Your task to perform on an android device: turn vacation reply on in the gmail app Image 0: 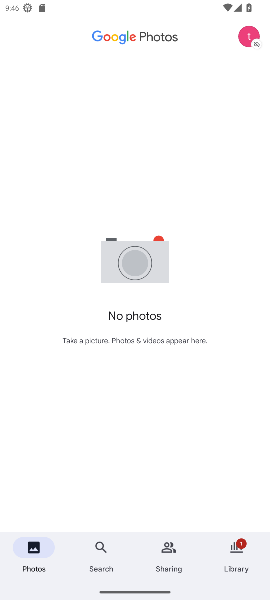
Step 0: press home button
Your task to perform on an android device: turn vacation reply on in the gmail app Image 1: 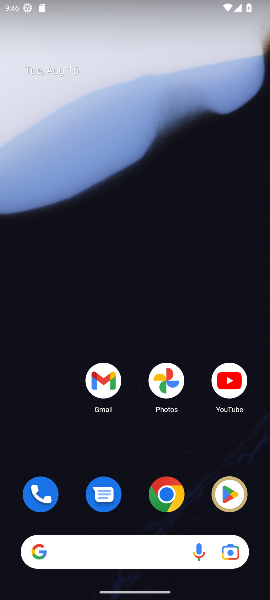
Step 1: drag from (164, 338) to (115, 3)
Your task to perform on an android device: turn vacation reply on in the gmail app Image 2: 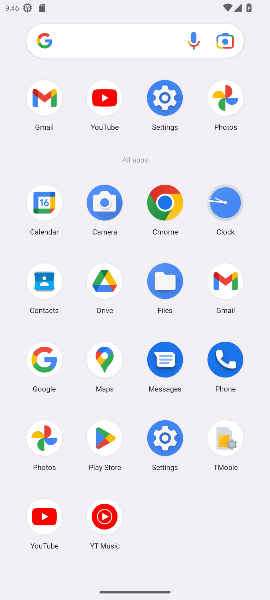
Step 2: click (221, 271)
Your task to perform on an android device: turn vacation reply on in the gmail app Image 3: 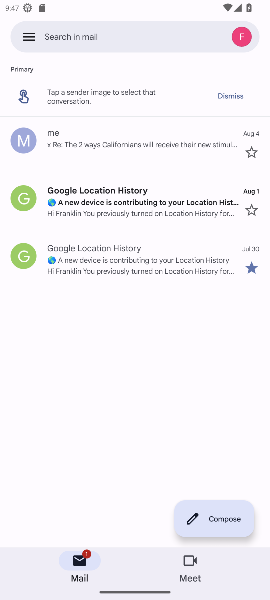
Step 3: click (29, 29)
Your task to perform on an android device: turn vacation reply on in the gmail app Image 4: 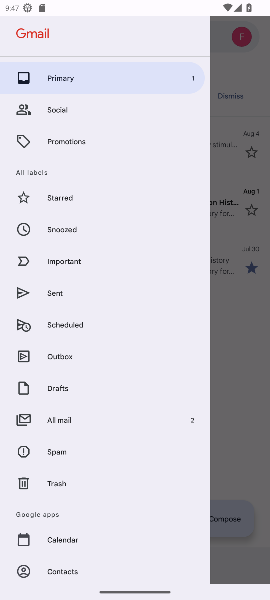
Step 4: drag from (116, 497) to (78, 170)
Your task to perform on an android device: turn vacation reply on in the gmail app Image 5: 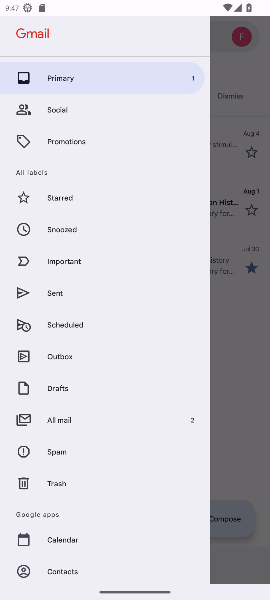
Step 5: drag from (98, 511) to (93, 102)
Your task to perform on an android device: turn vacation reply on in the gmail app Image 6: 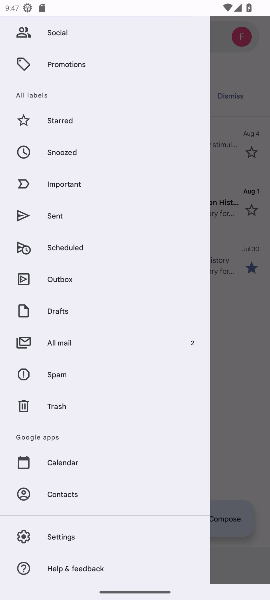
Step 6: click (56, 536)
Your task to perform on an android device: turn vacation reply on in the gmail app Image 7: 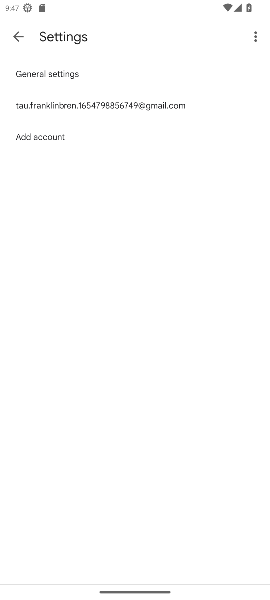
Step 7: click (147, 100)
Your task to perform on an android device: turn vacation reply on in the gmail app Image 8: 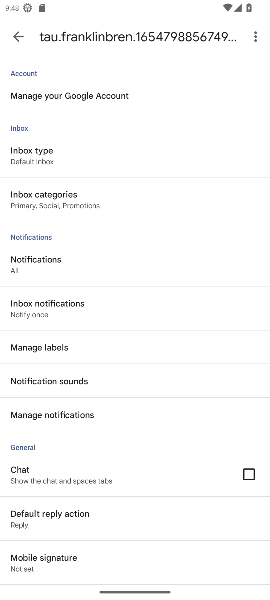
Step 8: drag from (132, 527) to (139, 168)
Your task to perform on an android device: turn vacation reply on in the gmail app Image 9: 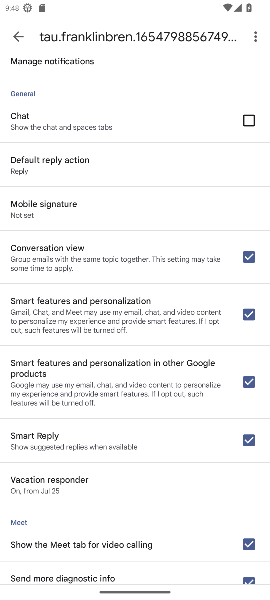
Step 9: click (36, 481)
Your task to perform on an android device: turn vacation reply on in the gmail app Image 10: 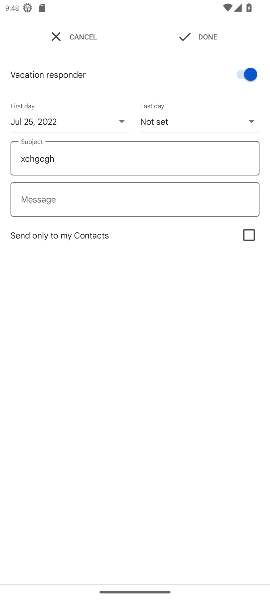
Step 10: click (208, 22)
Your task to perform on an android device: turn vacation reply on in the gmail app Image 11: 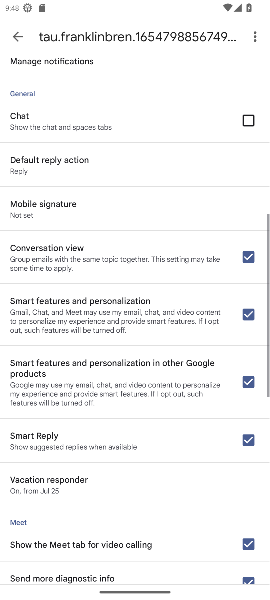
Step 11: click (209, 34)
Your task to perform on an android device: turn vacation reply on in the gmail app Image 12: 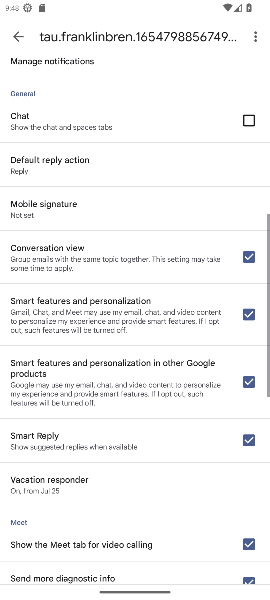
Step 12: task complete